Your task to perform on an android device: delete browsing data in the chrome app Image 0: 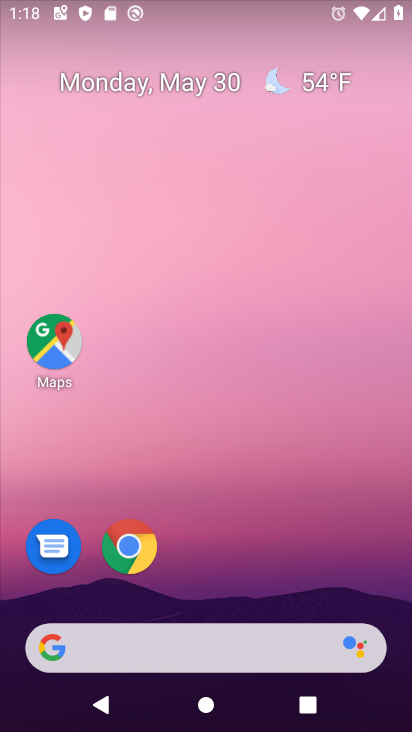
Step 0: press home button
Your task to perform on an android device: delete browsing data in the chrome app Image 1: 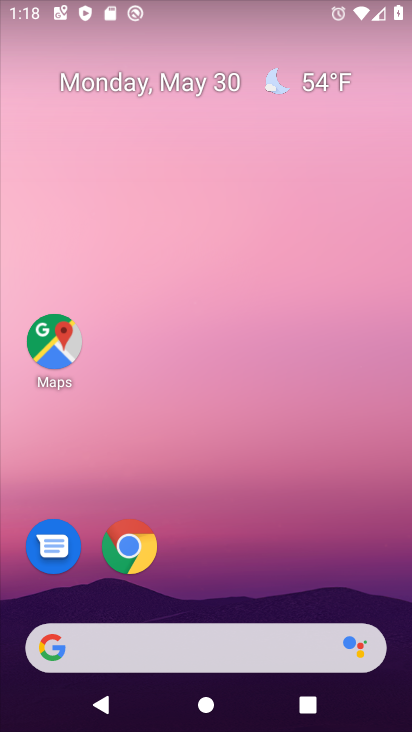
Step 1: click (133, 553)
Your task to perform on an android device: delete browsing data in the chrome app Image 2: 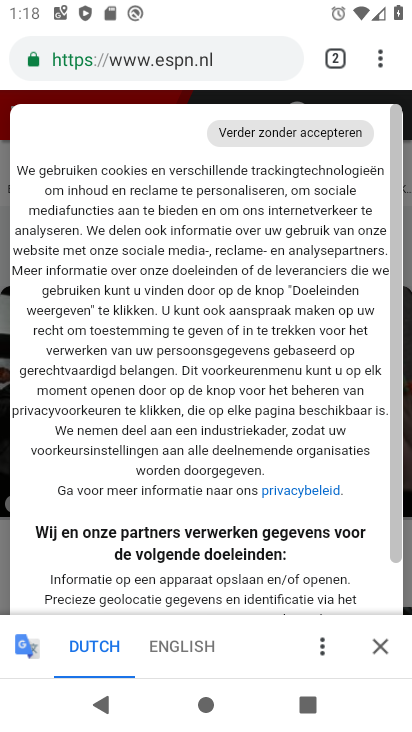
Step 2: drag from (383, 63) to (179, 584)
Your task to perform on an android device: delete browsing data in the chrome app Image 3: 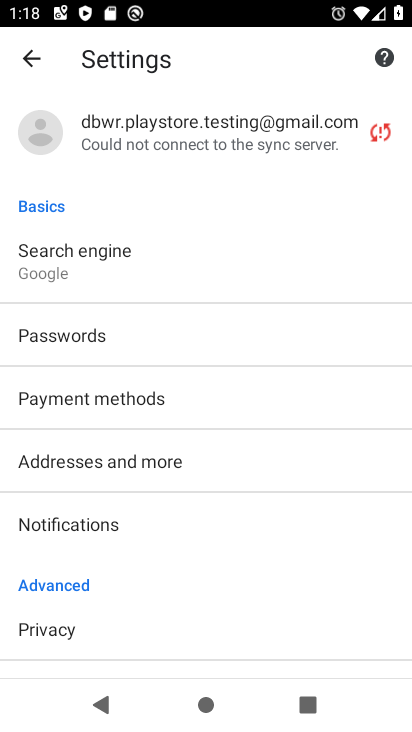
Step 3: drag from (261, 543) to (228, 195)
Your task to perform on an android device: delete browsing data in the chrome app Image 4: 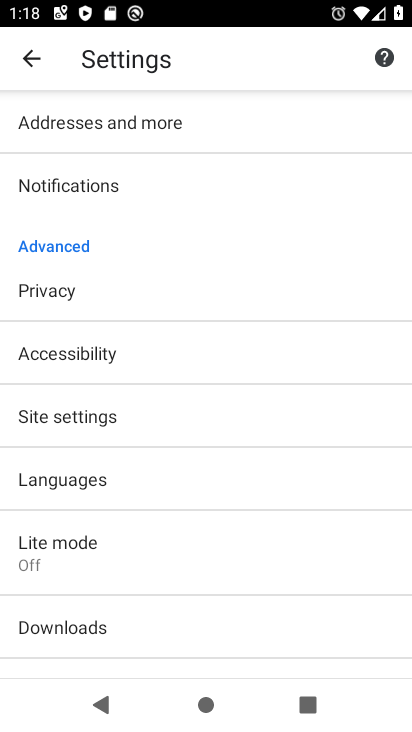
Step 4: click (49, 296)
Your task to perform on an android device: delete browsing data in the chrome app Image 5: 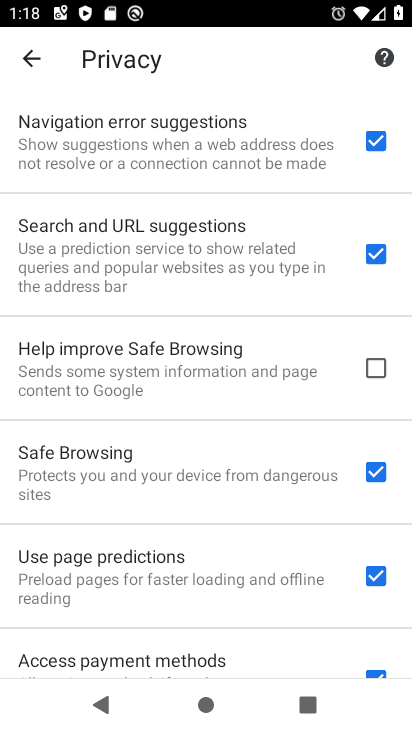
Step 5: drag from (331, 643) to (331, 22)
Your task to perform on an android device: delete browsing data in the chrome app Image 6: 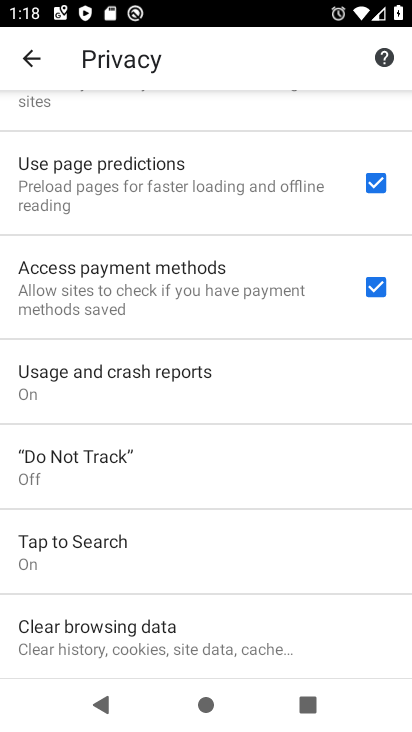
Step 6: click (125, 635)
Your task to perform on an android device: delete browsing data in the chrome app Image 7: 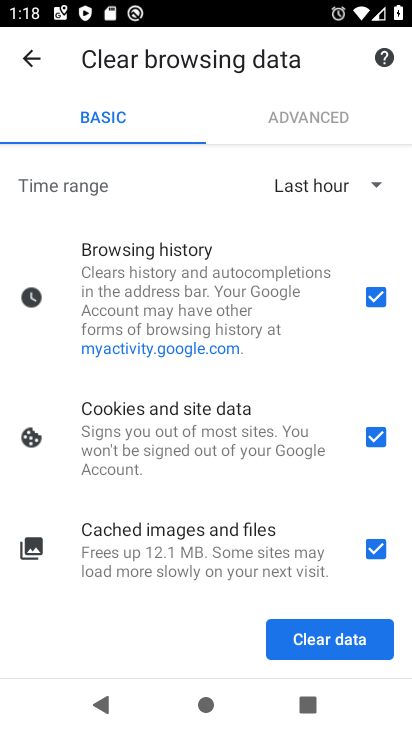
Step 7: click (324, 633)
Your task to perform on an android device: delete browsing data in the chrome app Image 8: 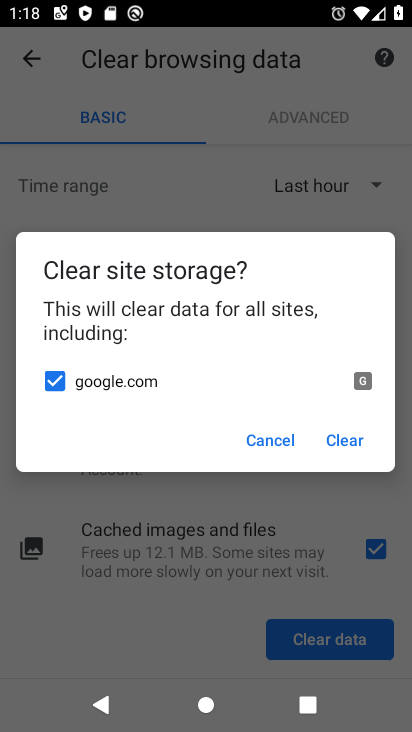
Step 8: click (343, 438)
Your task to perform on an android device: delete browsing data in the chrome app Image 9: 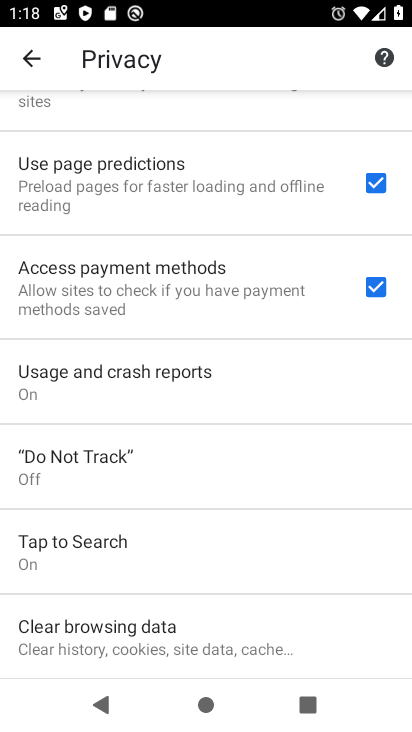
Step 9: task complete